Your task to perform on an android device: change text size in settings app Image 0: 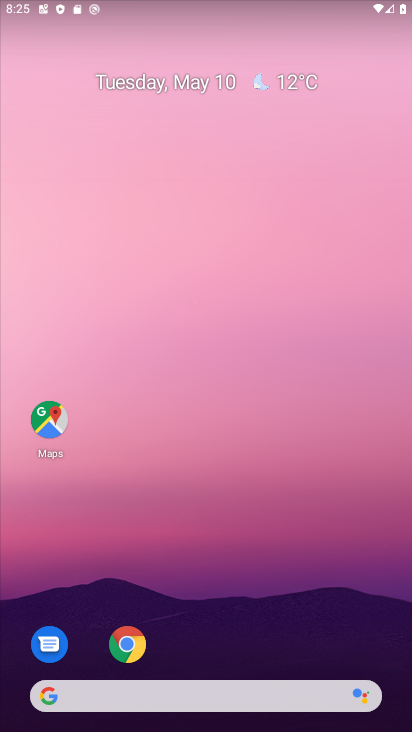
Step 0: drag from (385, 654) to (267, 188)
Your task to perform on an android device: change text size in settings app Image 1: 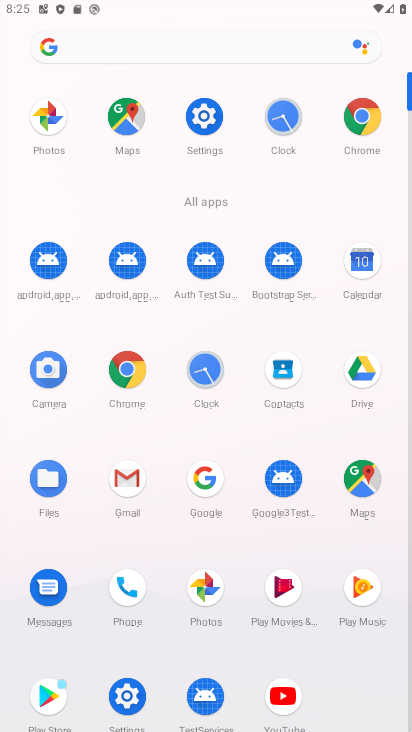
Step 1: click (126, 697)
Your task to perform on an android device: change text size in settings app Image 2: 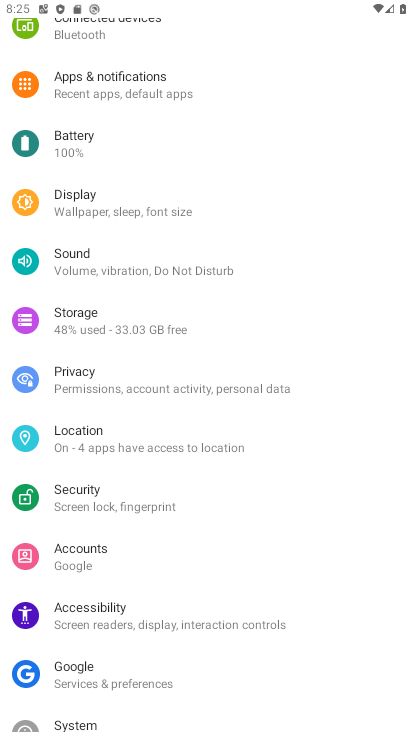
Step 2: drag from (243, 675) to (262, 508)
Your task to perform on an android device: change text size in settings app Image 3: 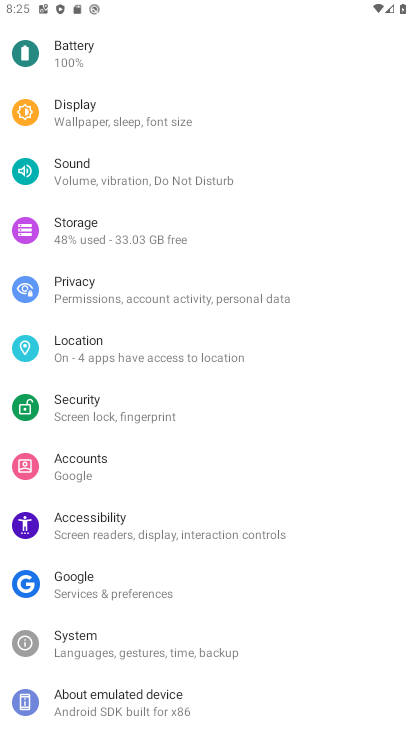
Step 3: click (87, 108)
Your task to perform on an android device: change text size in settings app Image 4: 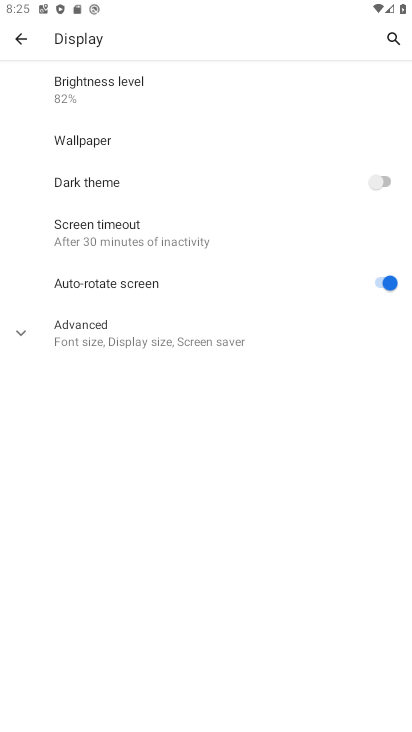
Step 4: click (26, 326)
Your task to perform on an android device: change text size in settings app Image 5: 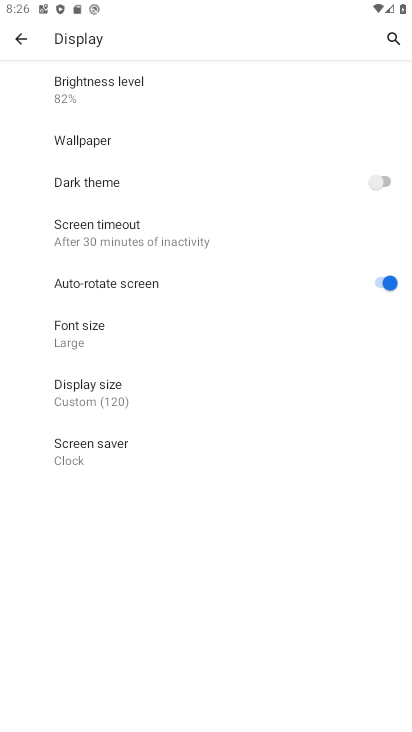
Step 5: click (78, 317)
Your task to perform on an android device: change text size in settings app Image 6: 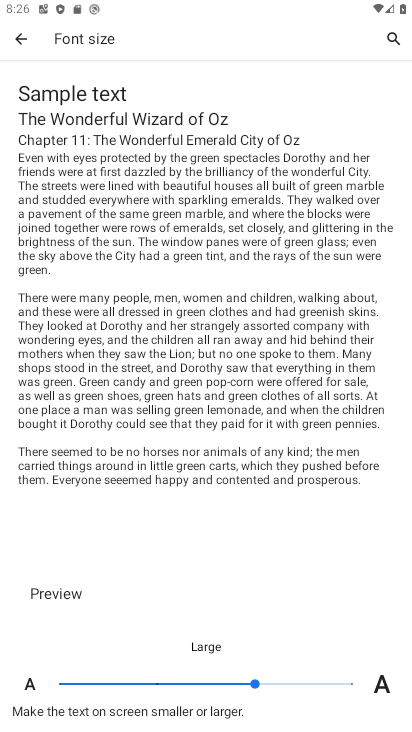
Step 6: click (167, 685)
Your task to perform on an android device: change text size in settings app Image 7: 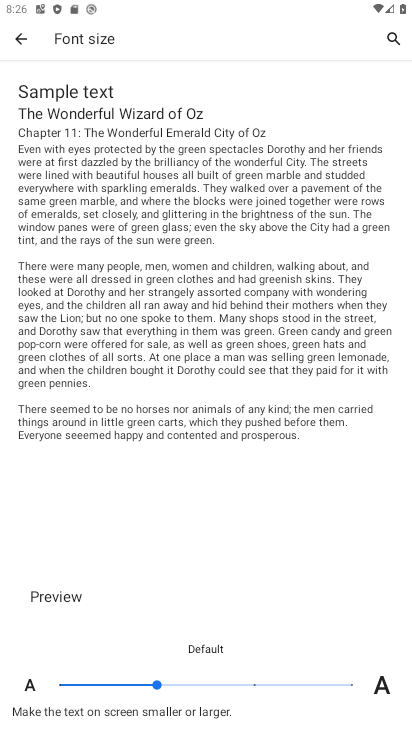
Step 7: task complete